Your task to perform on an android device: Open Google Chrome Image 0: 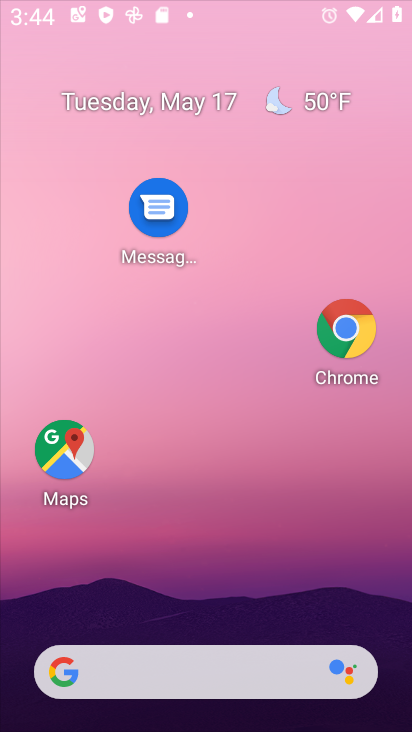
Step 0: drag from (237, 333) to (257, 136)
Your task to perform on an android device: Open Google Chrome Image 1: 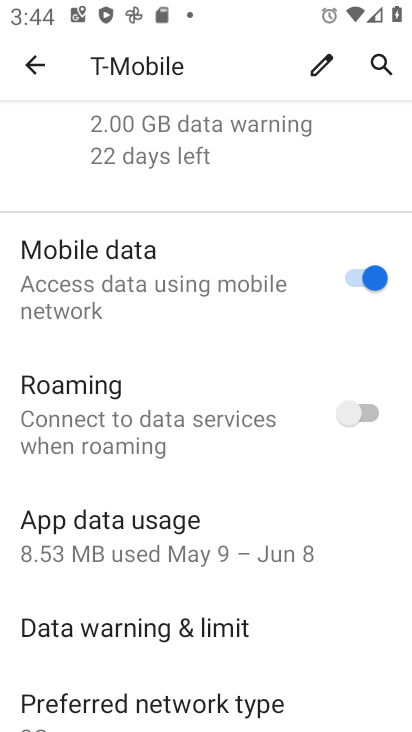
Step 1: click (34, 70)
Your task to perform on an android device: Open Google Chrome Image 2: 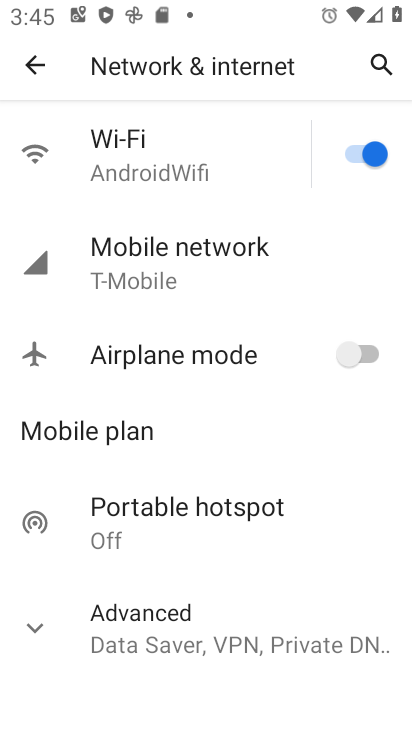
Step 2: click (37, 51)
Your task to perform on an android device: Open Google Chrome Image 3: 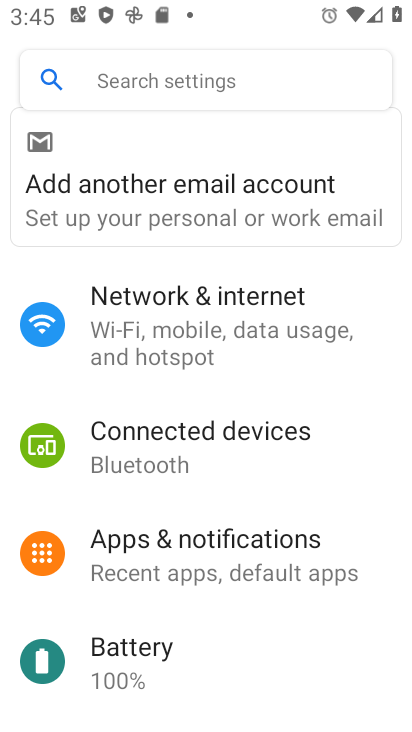
Step 3: drag from (135, 602) to (202, 322)
Your task to perform on an android device: Open Google Chrome Image 4: 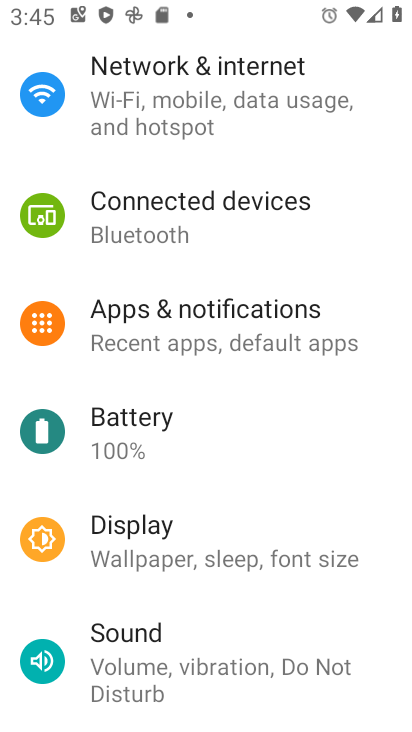
Step 4: click (250, 523)
Your task to perform on an android device: Open Google Chrome Image 5: 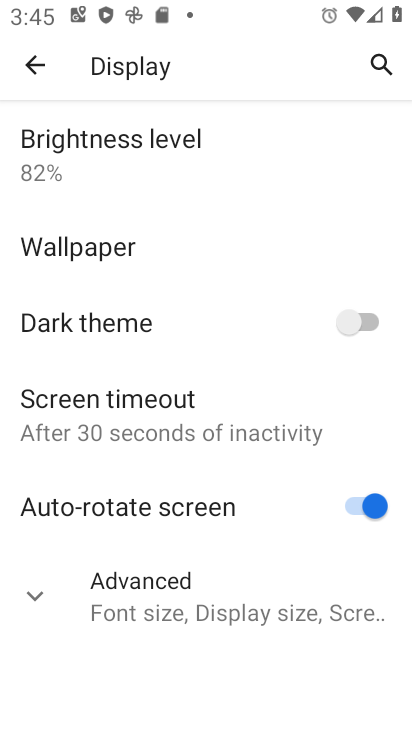
Step 5: task complete